Your task to perform on an android device: What's on my calendar today? Image 0: 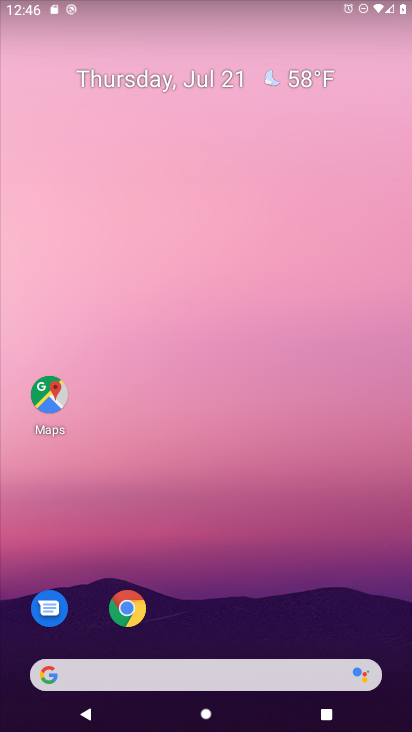
Step 0: press home button
Your task to perform on an android device: What's on my calendar today? Image 1: 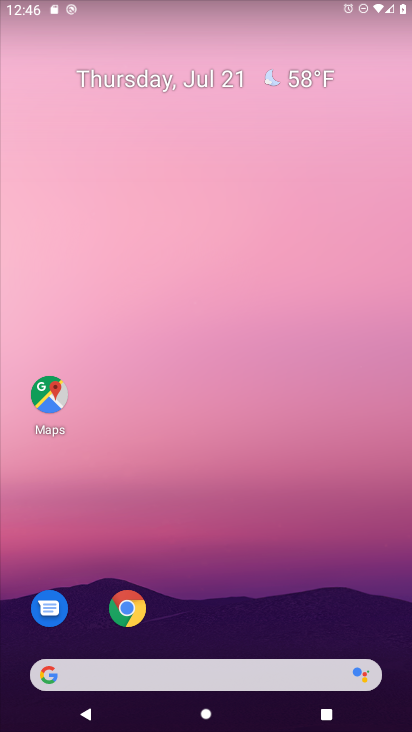
Step 1: drag from (222, 633) to (161, 183)
Your task to perform on an android device: What's on my calendar today? Image 2: 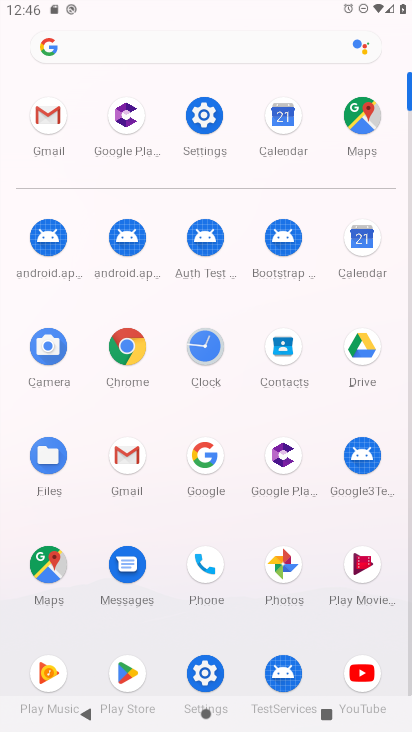
Step 2: click (354, 235)
Your task to perform on an android device: What's on my calendar today? Image 3: 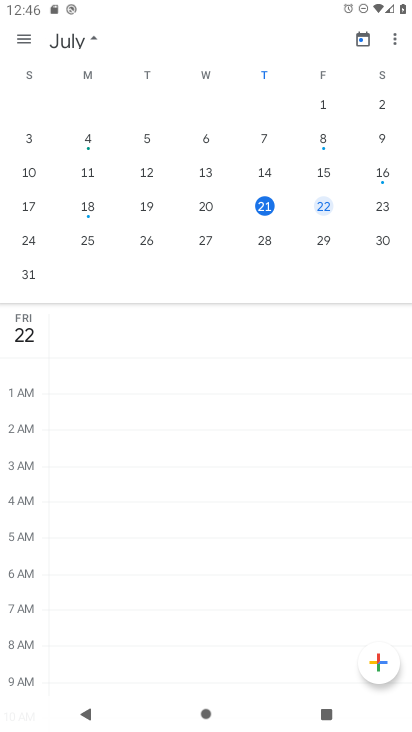
Step 3: click (265, 202)
Your task to perform on an android device: What's on my calendar today? Image 4: 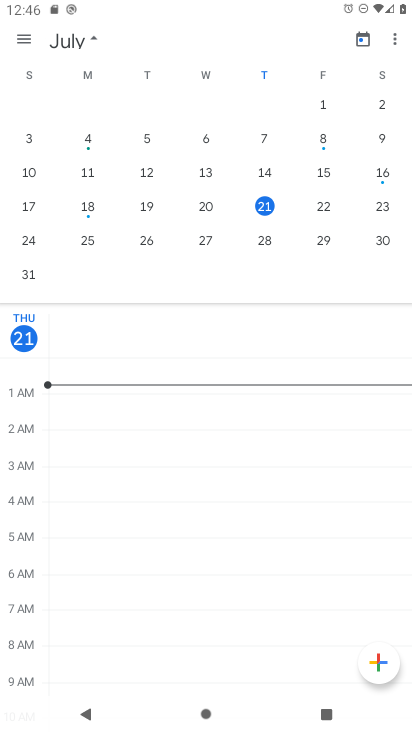
Step 4: task complete